Your task to perform on an android device: Search for sushi restaurants on Maps Image 0: 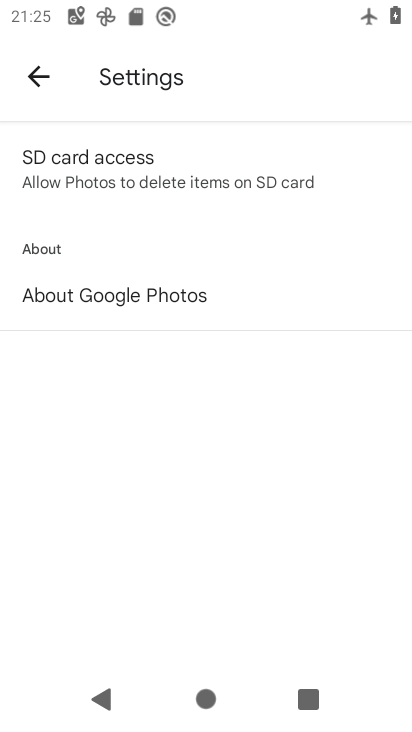
Step 0: drag from (273, 499) to (276, 196)
Your task to perform on an android device: Search for sushi restaurants on Maps Image 1: 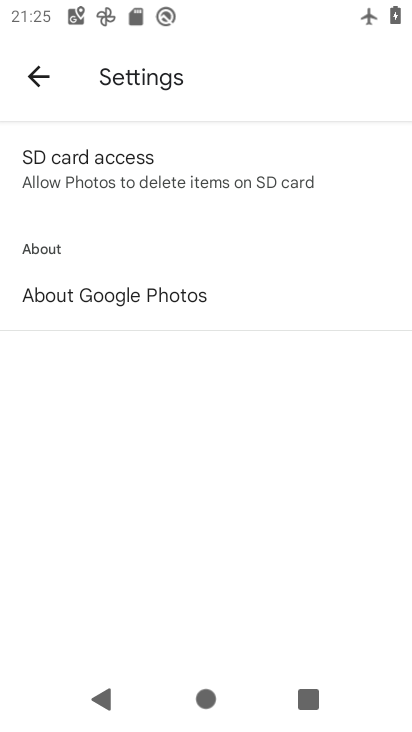
Step 1: drag from (187, 511) to (148, 182)
Your task to perform on an android device: Search for sushi restaurants on Maps Image 2: 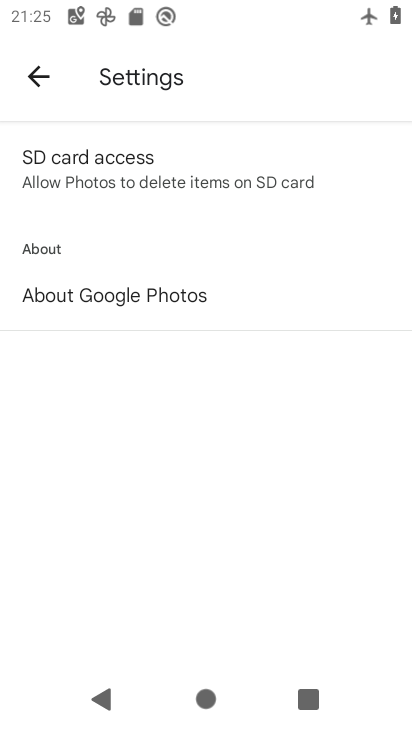
Step 2: drag from (177, 426) to (213, 241)
Your task to perform on an android device: Search for sushi restaurants on Maps Image 3: 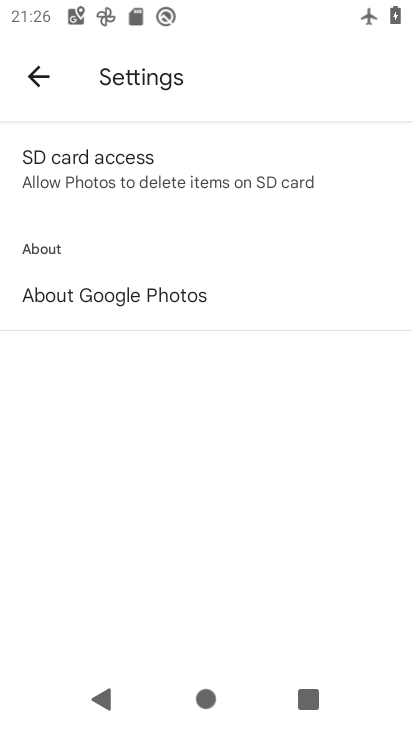
Step 3: drag from (223, 456) to (265, 176)
Your task to perform on an android device: Search for sushi restaurants on Maps Image 4: 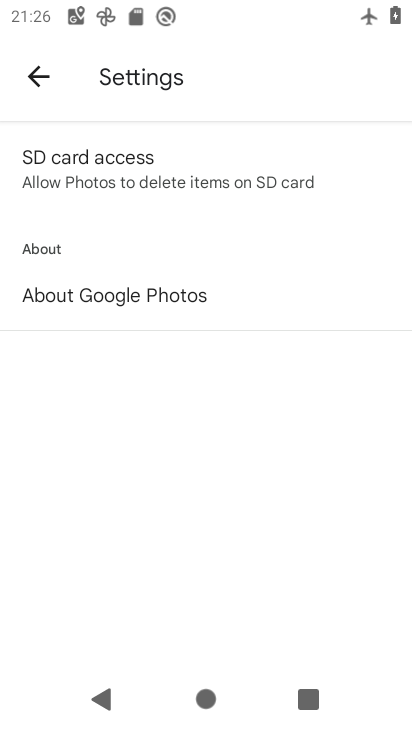
Step 4: drag from (296, 605) to (296, 429)
Your task to perform on an android device: Search for sushi restaurants on Maps Image 5: 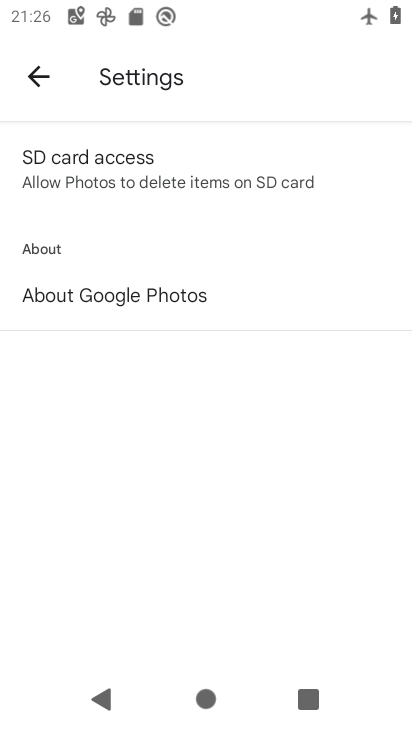
Step 5: drag from (121, 612) to (165, 327)
Your task to perform on an android device: Search for sushi restaurants on Maps Image 6: 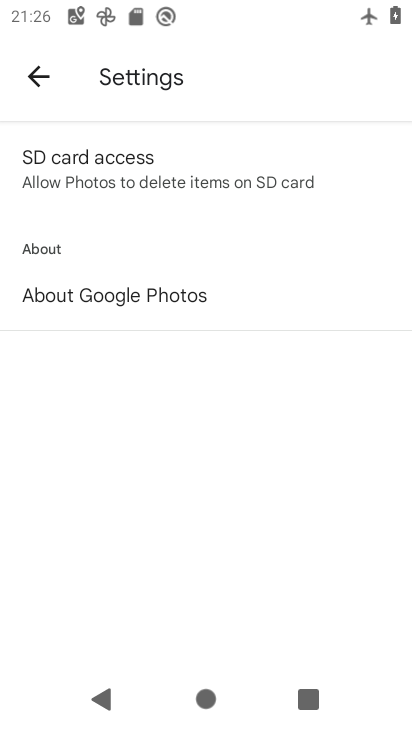
Step 6: drag from (160, 435) to (212, 689)
Your task to perform on an android device: Search for sushi restaurants on Maps Image 7: 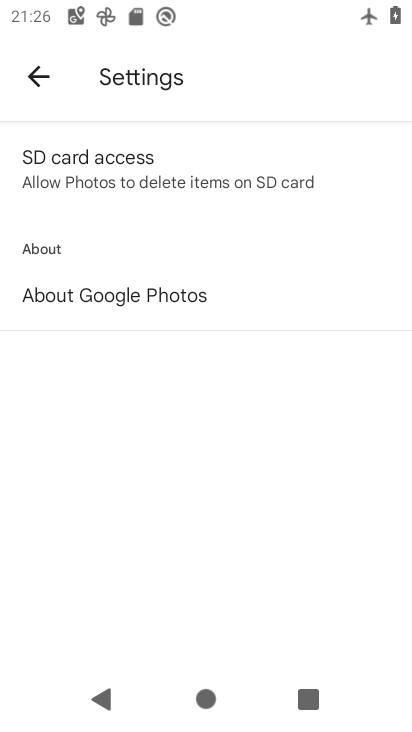
Step 7: press home button
Your task to perform on an android device: Search for sushi restaurants on Maps Image 8: 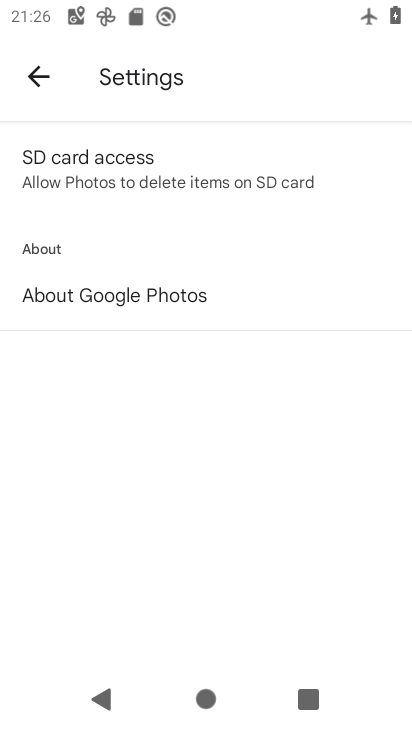
Step 8: drag from (160, 242) to (229, 9)
Your task to perform on an android device: Search for sushi restaurants on Maps Image 9: 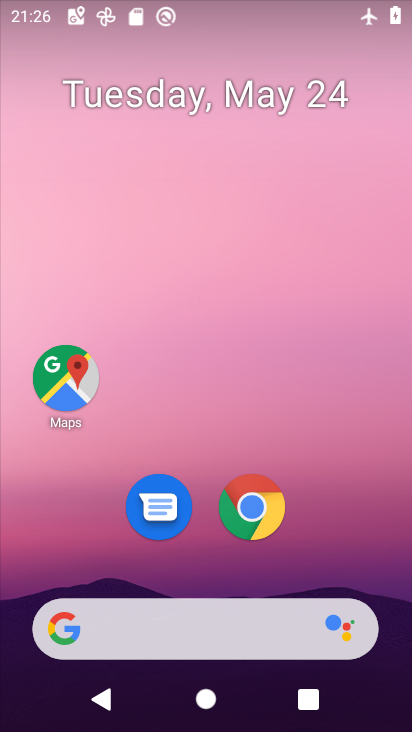
Step 9: click (50, 365)
Your task to perform on an android device: Search for sushi restaurants on Maps Image 10: 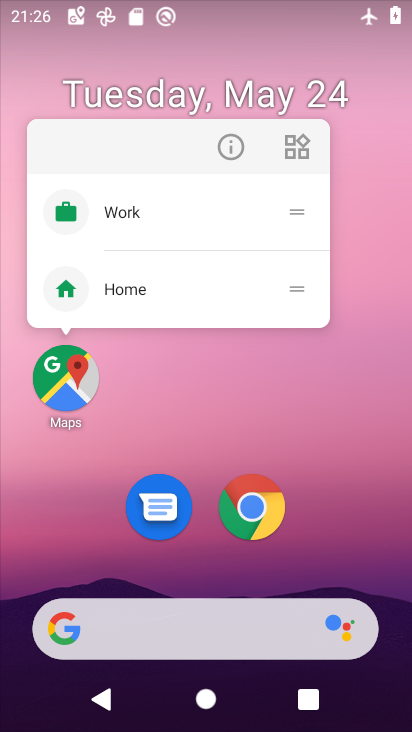
Step 10: click (231, 149)
Your task to perform on an android device: Search for sushi restaurants on Maps Image 11: 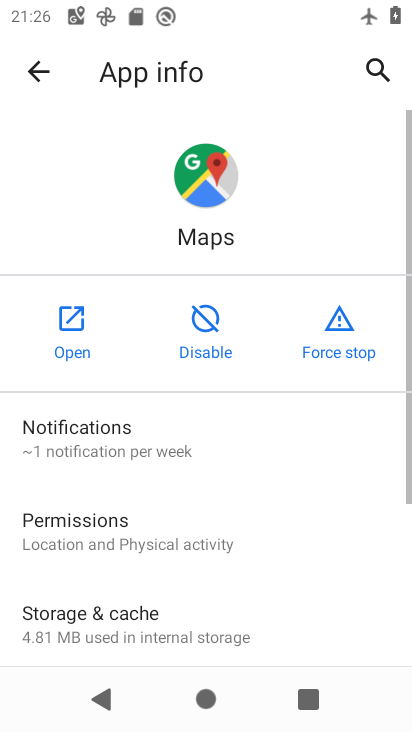
Step 11: click (72, 316)
Your task to perform on an android device: Search for sushi restaurants on Maps Image 12: 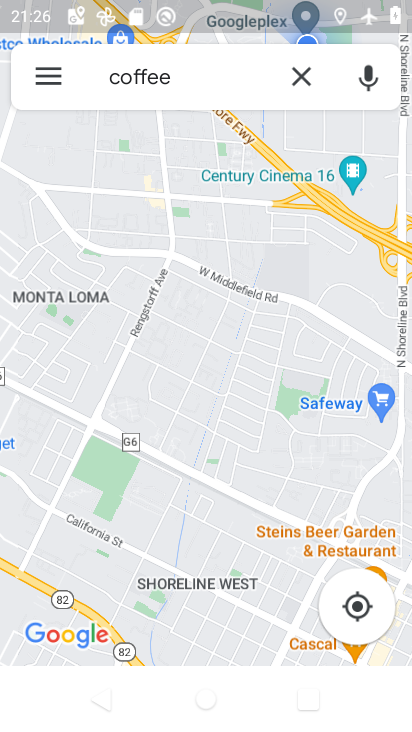
Step 12: click (295, 70)
Your task to perform on an android device: Search for sushi restaurants on Maps Image 13: 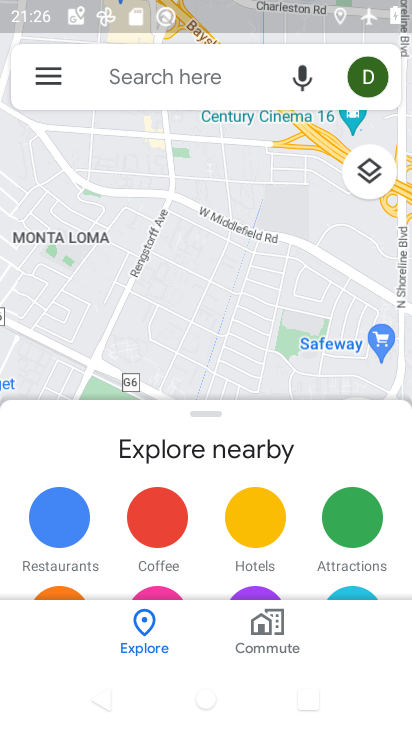
Step 13: click (146, 87)
Your task to perform on an android device: Search for sushi restaurants on Maps Image 14: 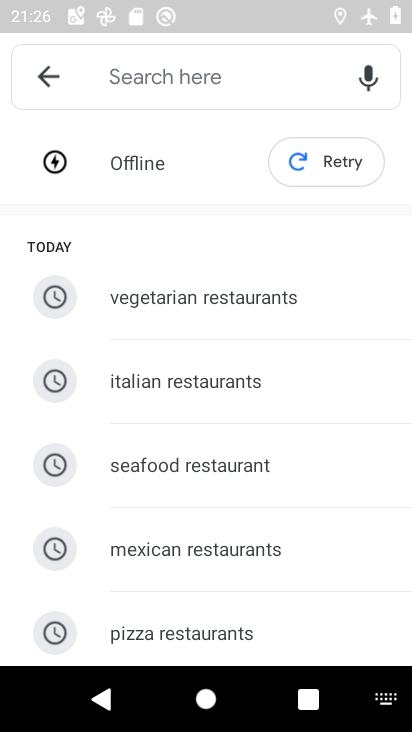
Step 14: drag from (197, 576) to (197, 288)
Your task to perform on an android device: Search for sushi restaurants on Maps Image 15: 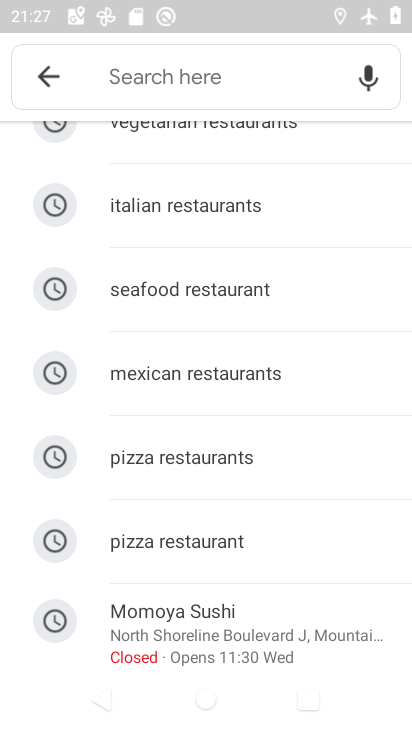
Step 15: drag from (210, 466) to (224, 236)
Your task to perform on an android device: Search for sushi restaurants on Maps Image 16: 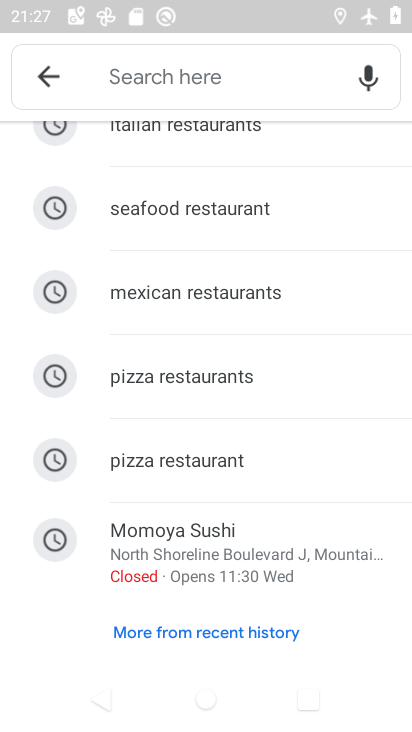
Step 16: drag from (245, 201) to (250, 713)
Your task to perform on an android device: Search for sushi restaurants on Maps Image 17: 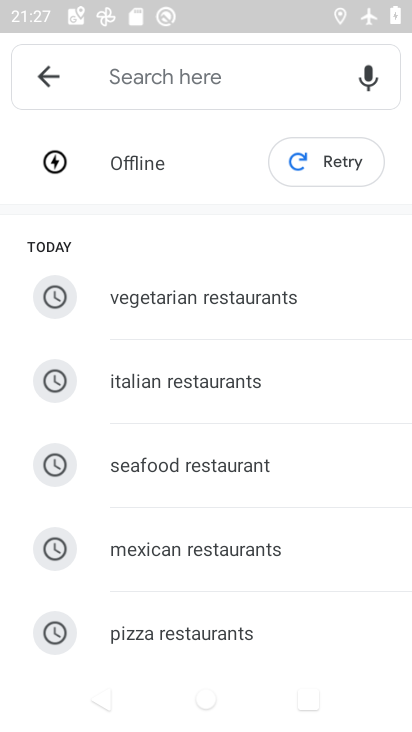
Step 17: drag from (170, 597) to (171, 359)
Your task to perform on an android device: Search for sushi restaurants on Maps Image 18: 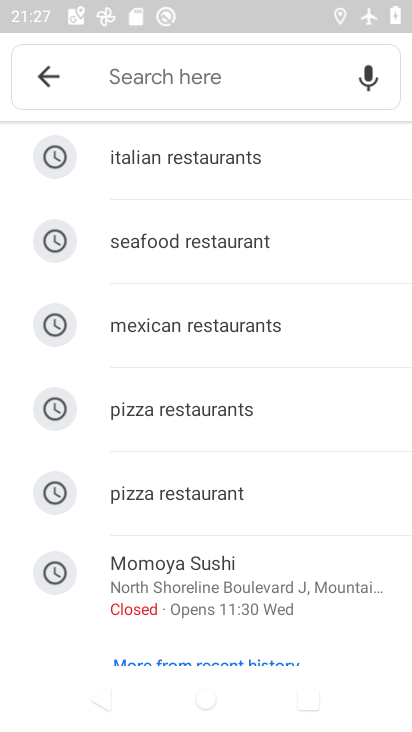
Step 18: click (208, 87)
Your task to perform on an android device: Search for sushi restaurants on Maps Image 19: 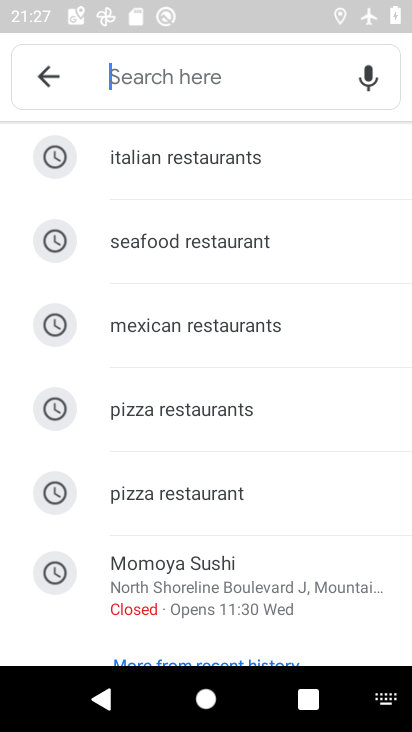
Step 19: click (169, 65)
Your task to perform on an android device: Search for sushi restaurants on Maps Image 20: 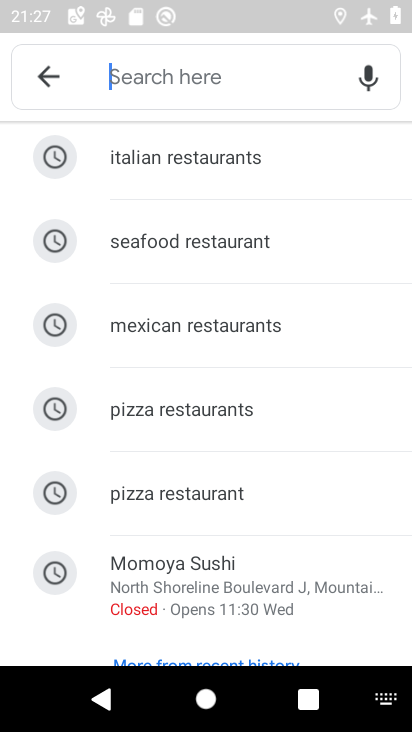
Step 20: type "sushi restaurants"
Your task to perform on an android device: Search for sushi restaurants on Maps Image 21: 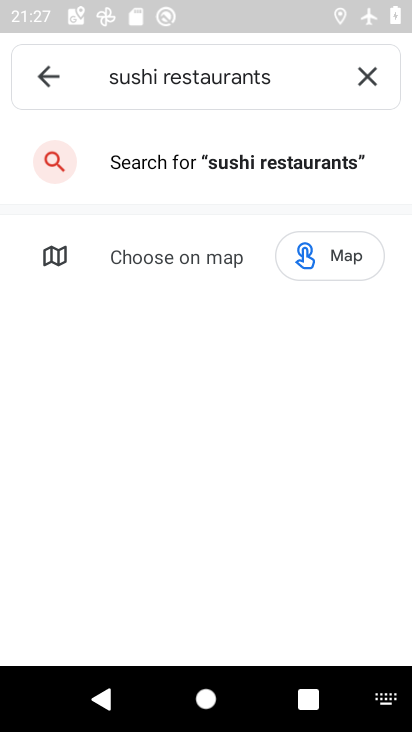
Step 21: click (258, 154)
Your task to perform on an android device: Search for sushi restaurants on Maps Image 22: 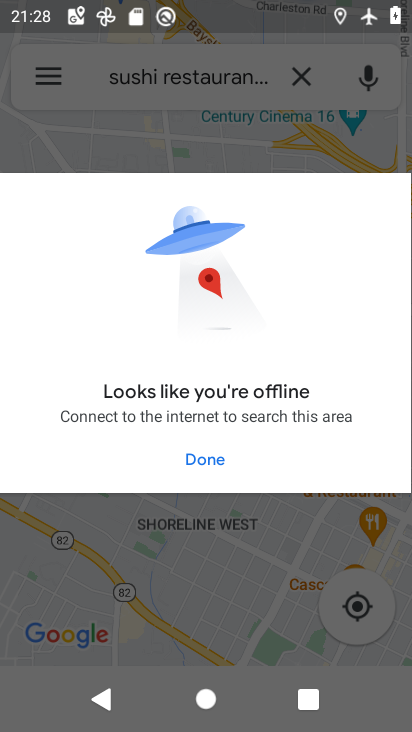
Step 22: click (197, 460)
Your task to perform on an android device: Search for sushi restaurants on Maps Image 23: 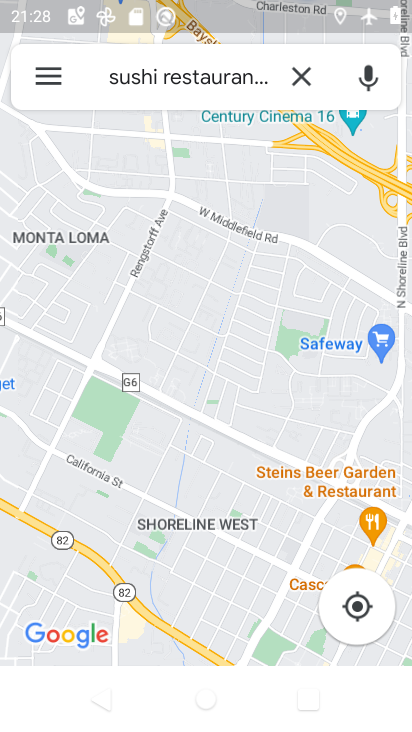
Step 23: task complete